Your task to perform on an android device: Turn on the flashlight Image 0: 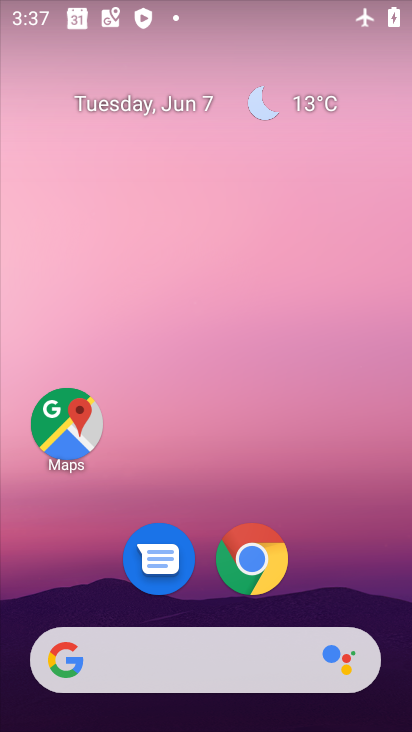
Step 0: drag from (301, 221) to (299, 183)
Your task to perform on an android device: Turn on the flashlight Image 1: 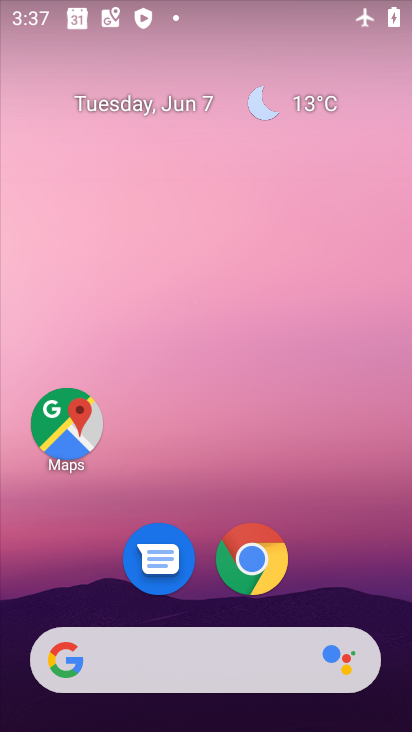
Step 1: drag from (349, 551) to (207, 69)
Your task to perform on an android device: Turn on the flashlight Image 2: 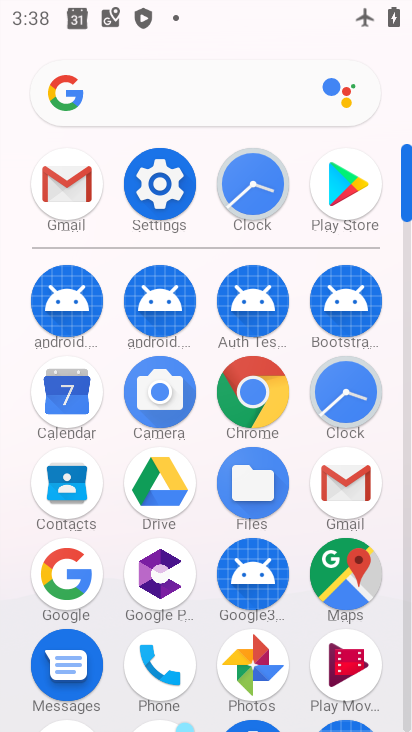
Step 2: click (158, 185)
Your task to perform on an android device: Turn on the flashlight Image 3: 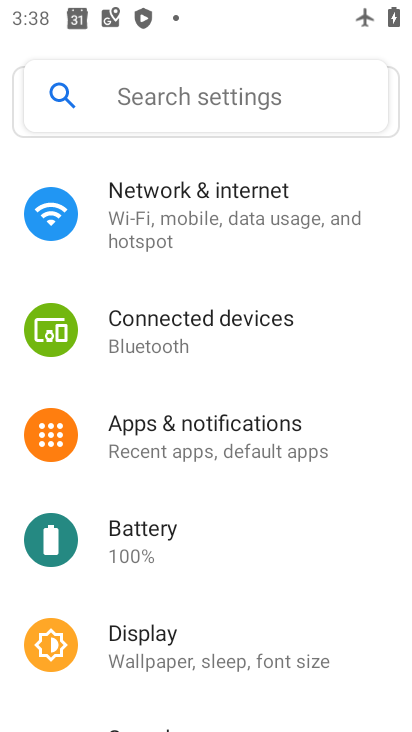
Step 3: drag from (136, 402) to (166, 252)
Your task to perform on an android device: Turn on the flashlight Image 4: 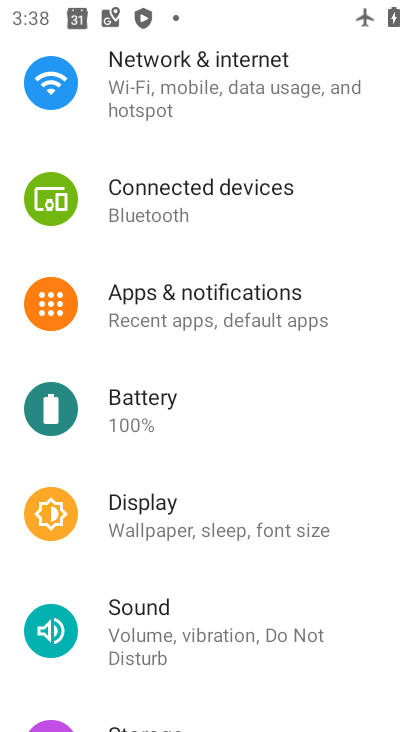
Step 4: drag from (123, 477) to (189, 346)
Your task to perform on an android device: Turn on the flashlight Image 5: 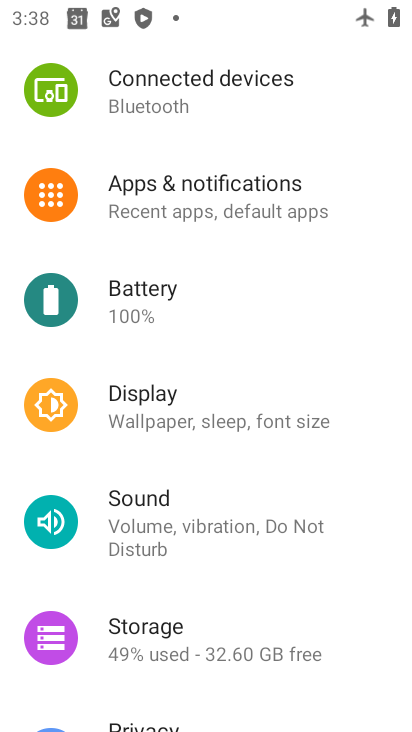
Step 5: drag from (130, 566) to (239, 432)
Your task to perform on an android device: Turn on the flashlight Image 6: 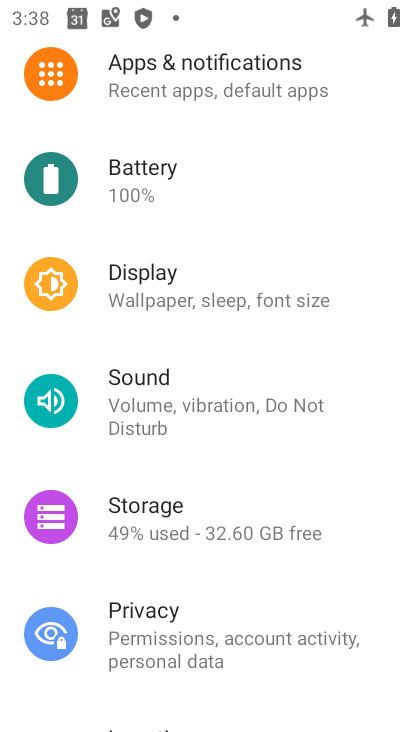
Step 6: click (257, 300)
Your task to perform on an android device: Turn on the flashlight Image 7: 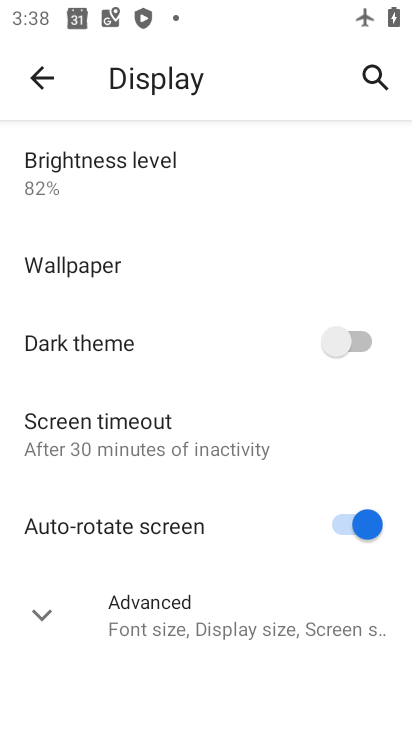
Step 7: click (145, 622)
Your task to perform on an android device: Turn on the flashlight Image 8: 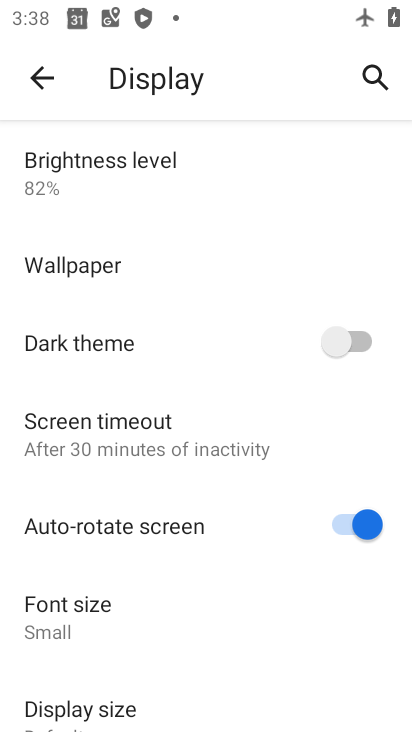
Step 8: drag from (100, 567) to (188, 300)
Your task to perform on an android device: Turn on the flashlight Image 9: 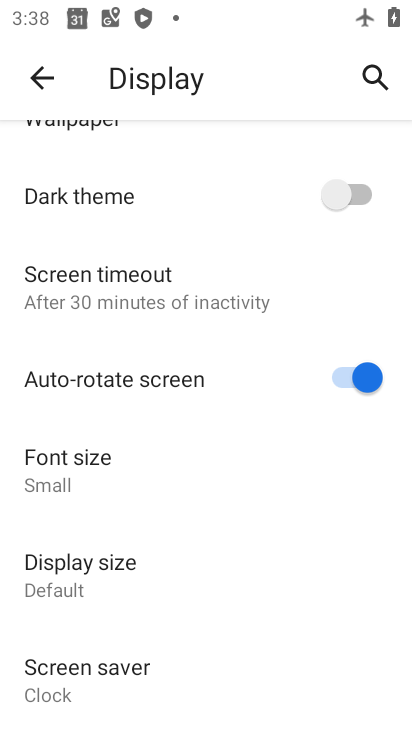
Step 9: drag from (103, 558) to (137, 381)
Your task to perform on an android device: Turn on the flashlight Image 10: 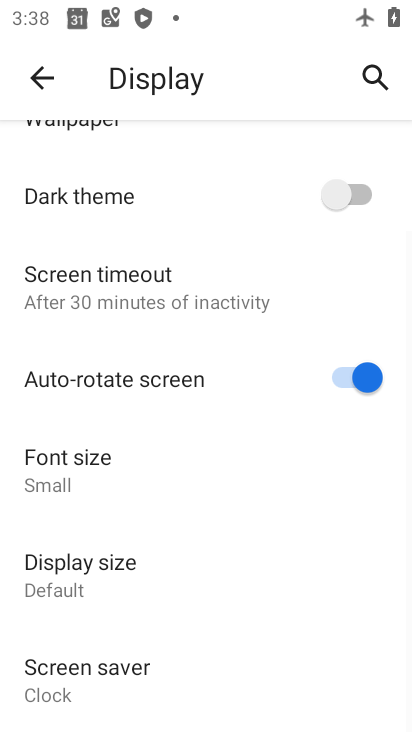
Step 10: press back button
Your task to perform on an android device: Turn on the flashlight Image 11: 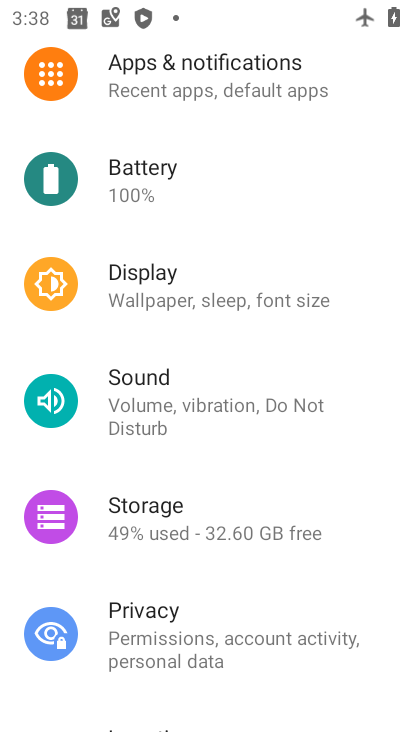
Step 11: click (284, 412)
Your task to perform on an android device: Turn on the flashlight Image 12: 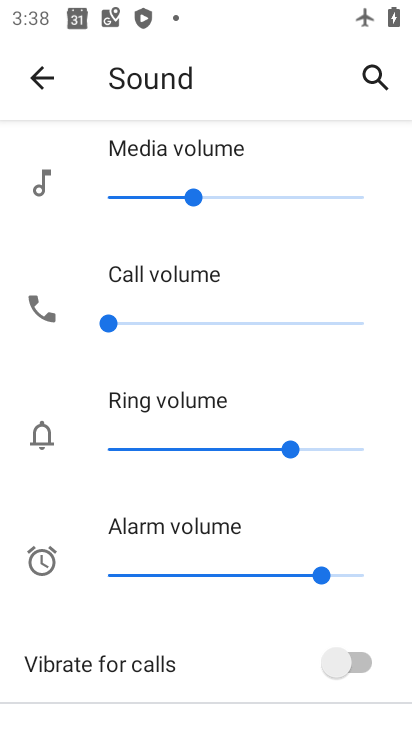
Step 12: press back button
Your task to perform on an android device: Turn on the flashlight Image 13: 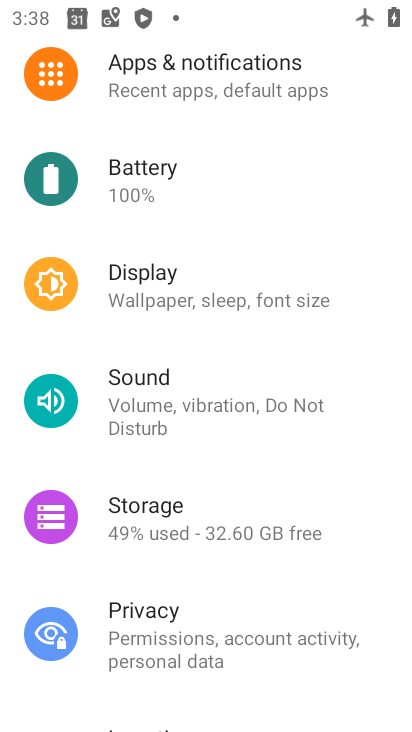
Step 13: click (187, 288)
Your task to perform on an android device: Turn on the flashlight Image 14: 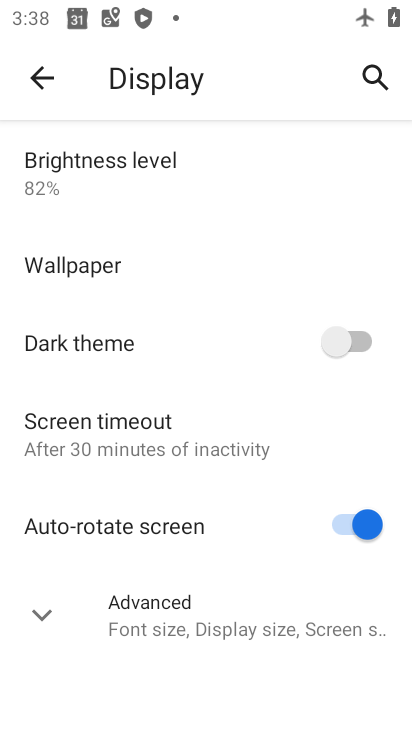
Step 14: click (168, 454)
Your task to perform on an android device: Turn on the flashlight Image 15: 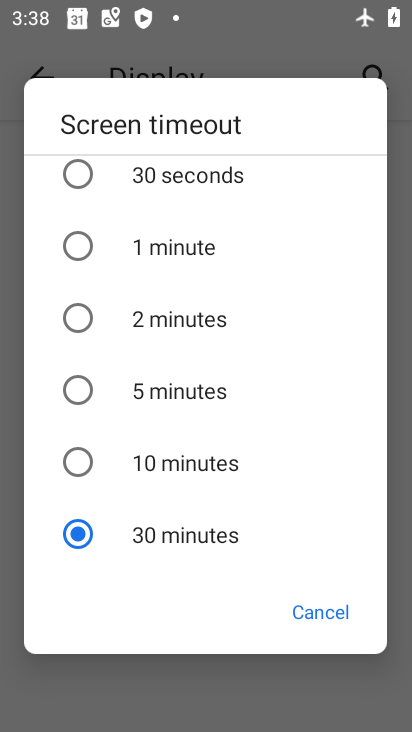
Step 15: drag from (240, 290) to (252, 432)
Your task to perform on an android device: Turn on the flashlight Image 16: 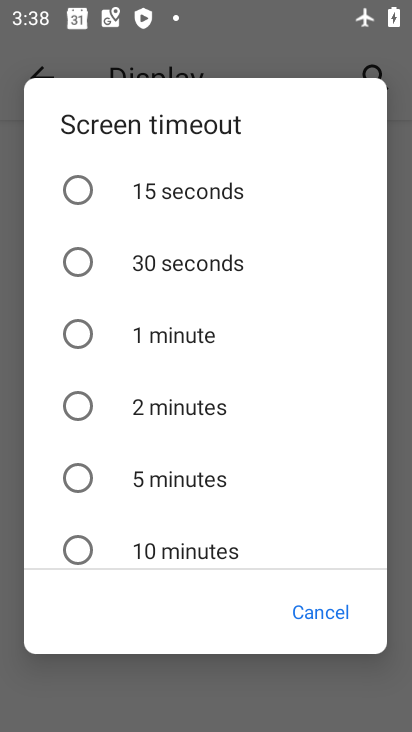
Step 16: drag from (225, 222) to (231, 488)
Your task to perform on an android device: Turn on the flashlight Image 17: 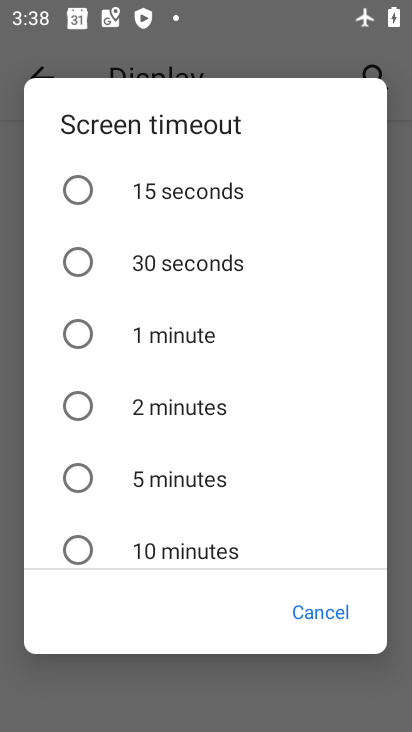
Step 17: click (312, 620)
Your task to perform on an android device: Turn on the flashlight Image 18: 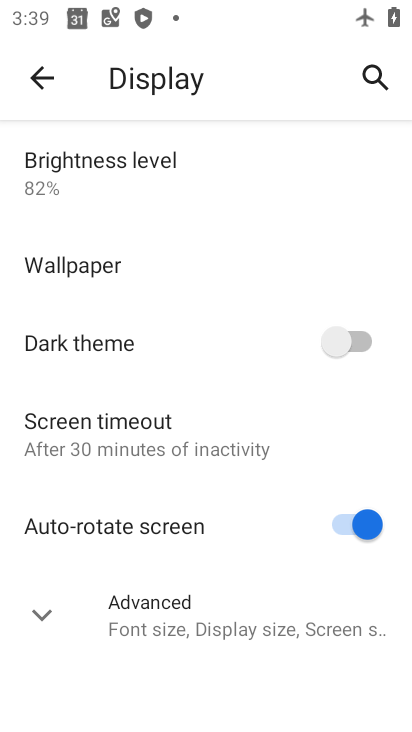
Step 18: drag from (210, 592) to (230, 303)
Your task to perform on an android device: Turn on the flashlight Image 19: 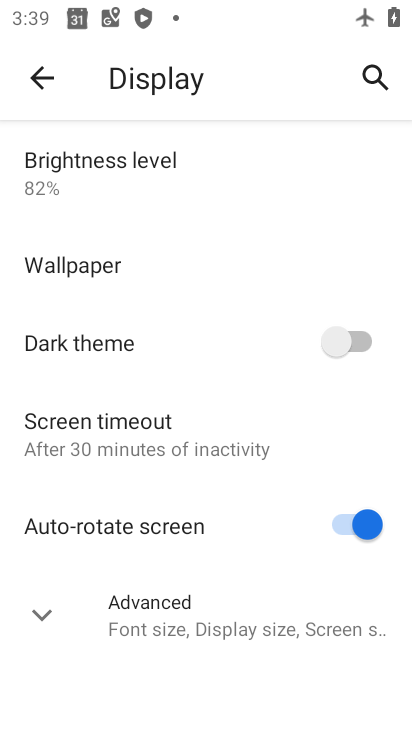
Step 19: click (240, 608)
Your task to perform on an android device: Turn on the flashlight Image 20: 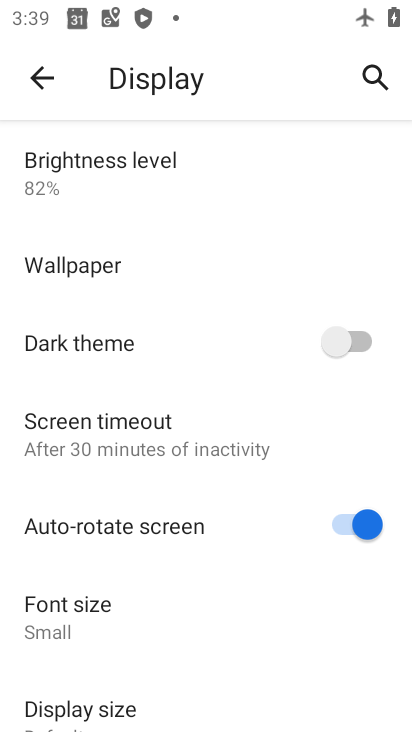
Step 20: drag from (181, 617) to (195, 401)
Your task to perform on an android device: Turn on the flashlight Image 21: 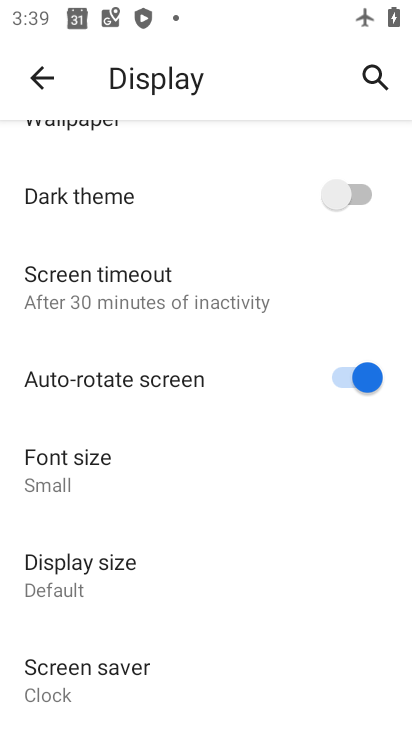
Step 21: click (130, 431)
Your task to perform on an android device: Turn on the flashlight Image 22: 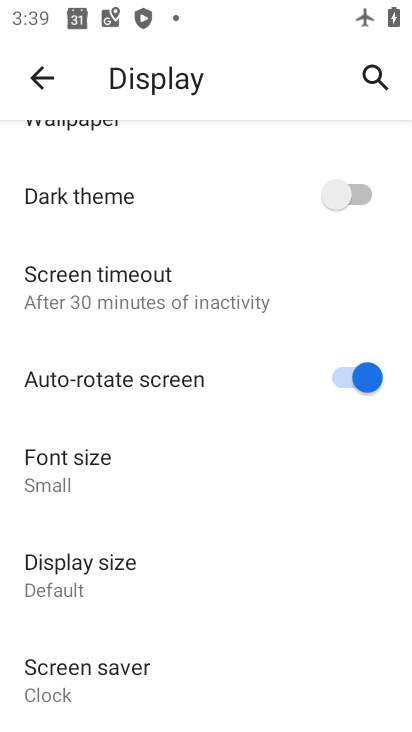
Step 22: task complete